Your task to perform on an android device: see sites visited before in the chrome app Image 0: 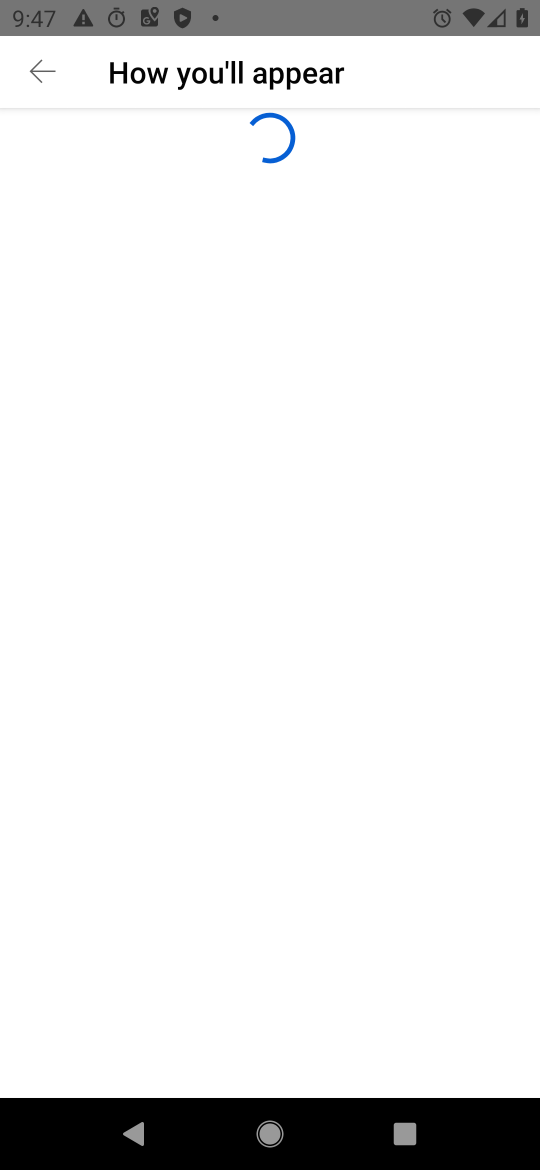
Step 0: drag from (337, 1081) to (247, 507)
Your task to perform on an android device: see sites visited before in the chrome app Image 1: 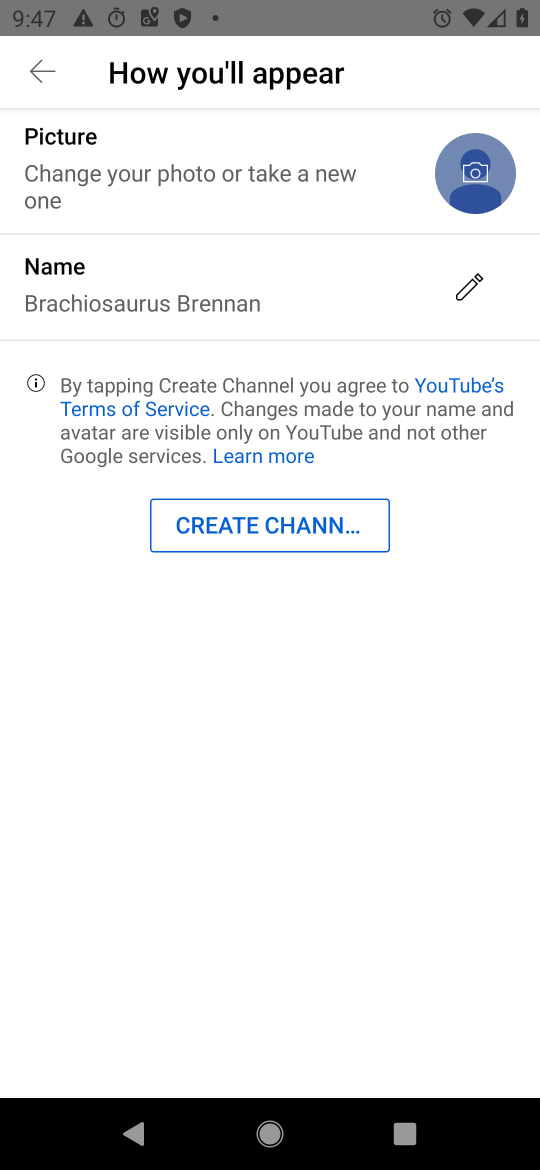
Step 1: press home button
Your task to perform on an android device: see sites visited before in the chrome app Image 2: 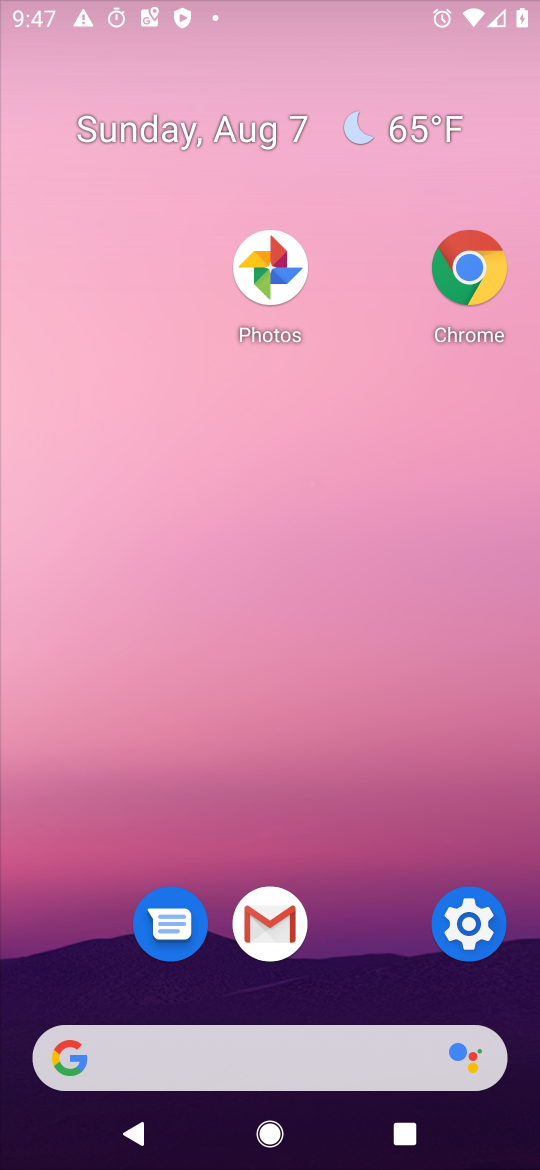
Step 2: drag from (327, 1111) to (239, 471)
Your task to perform on an android device: see sites visited before in the chrome app Image 3: 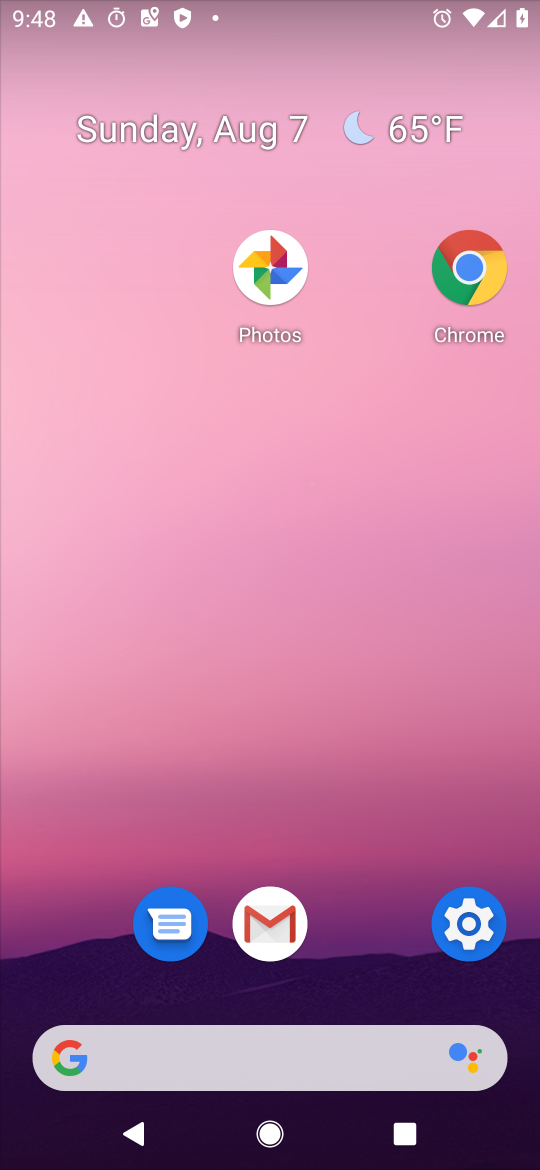
Step 3: click (451, 261)
Your task to perform on an android device: see sites visited before in the chrome app Image 4: 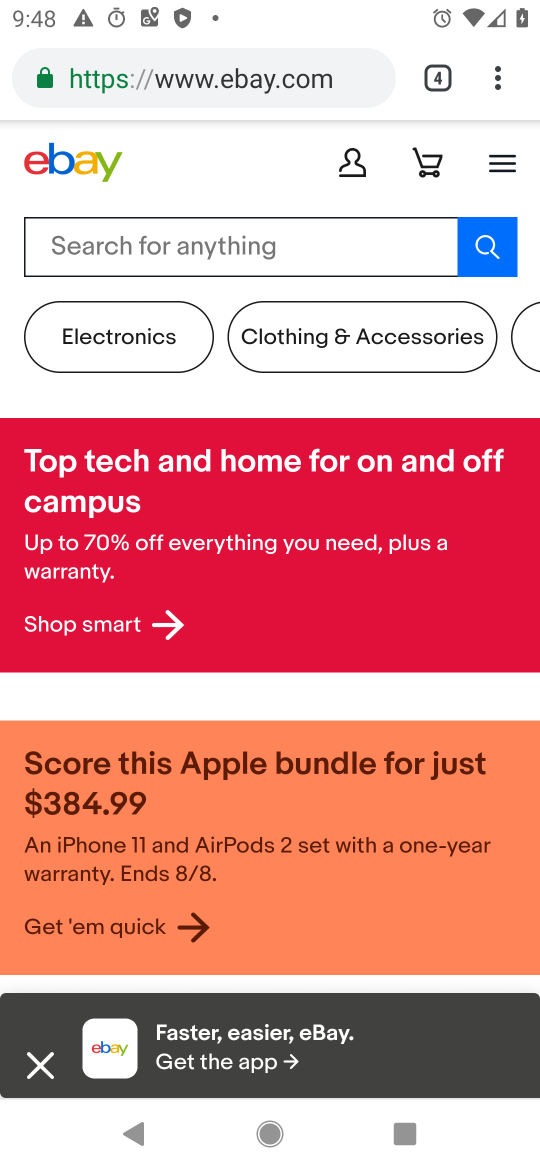
Step 4: click (494, 85)
Your task to perform on an android device: see sites visited before in the chrome app Image 5: 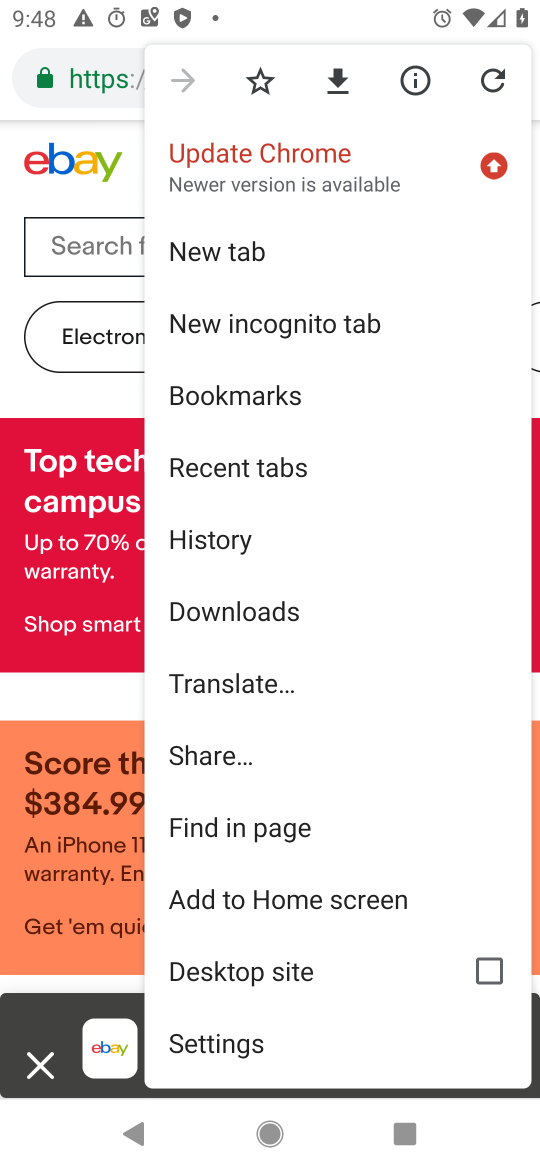
Step 5: click (218, 1025)
Your task to perform on an android device: see sites visited before in the chrome app Image 6: 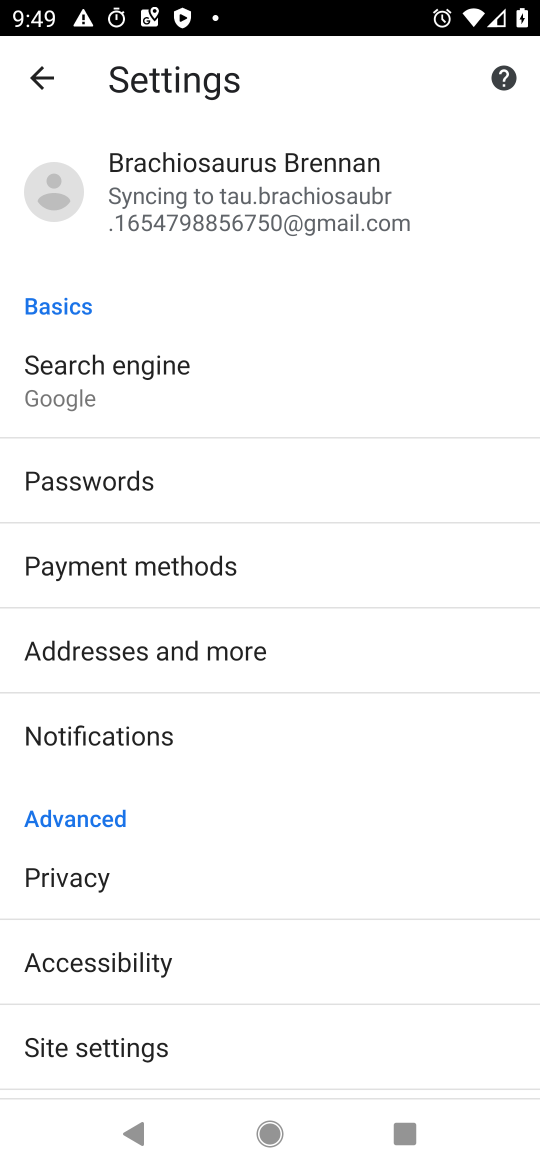
Step 6: click (152, 1054)
Your task to perform on an android device: see sites visited before in the chrome app Image 7: 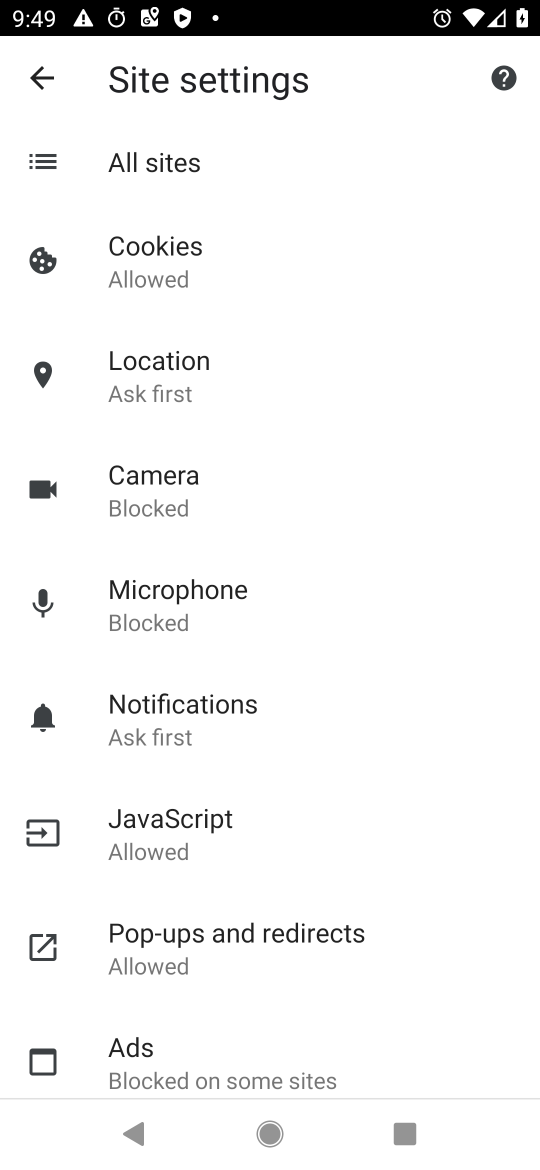
Step 7: click (237, 181)
Your task to perform on an android device: see sites visited before in the chrome app Image 8: 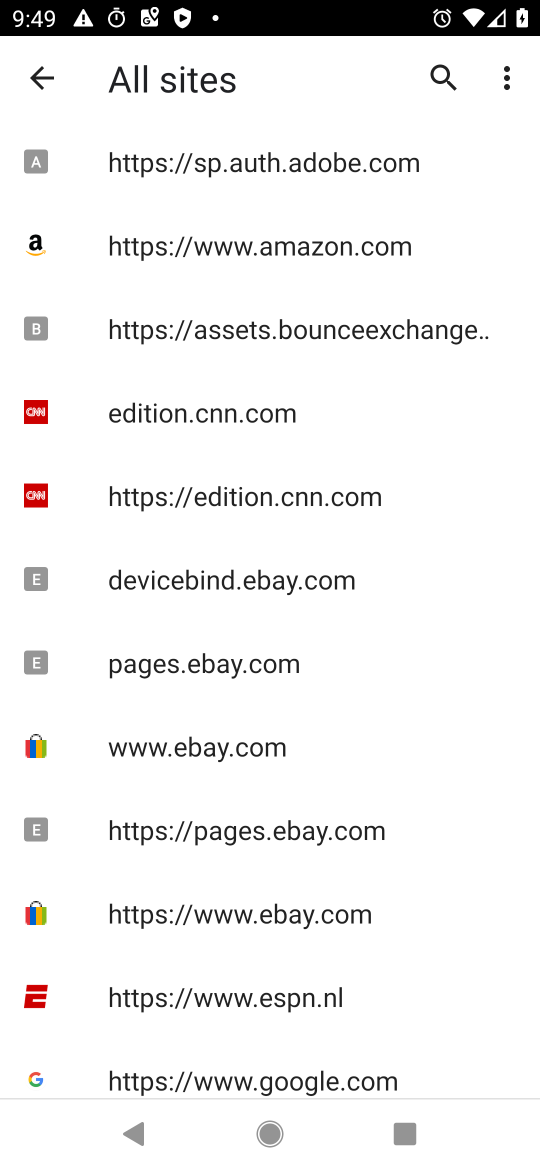
Step 8: task complete